Your task to perform on an android device: Open Chrome and go to settings Image 0: 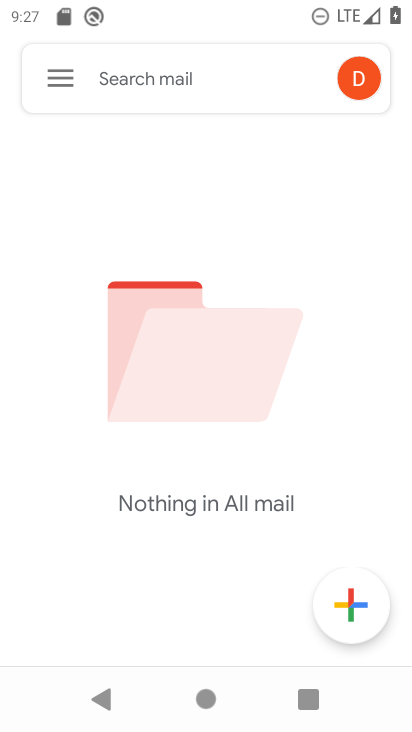
Step 0: press home button
Your task to perform on an android device: Open Chrome and go to settings Image 1: 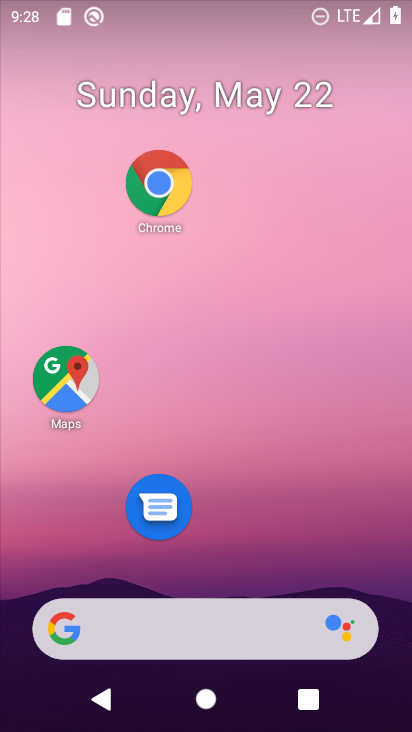
Step 1: click (176, 184)
Your task to perform on an android device: Open Chrome and go to settings Image 2: 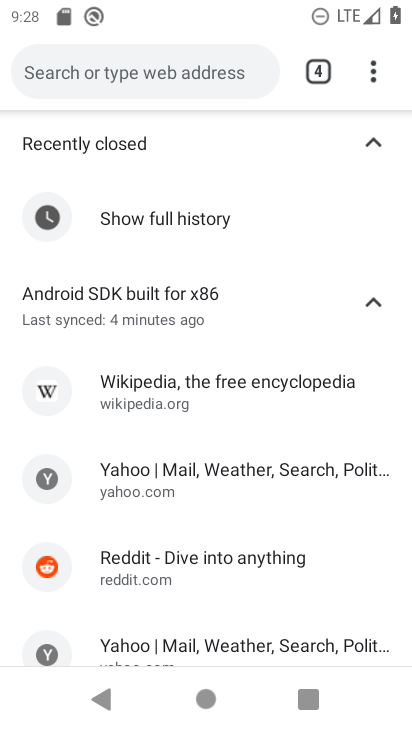
Step 2: click (371, 64)
Your task to perform on an android device: Open Chrome and go to settings Image 3: 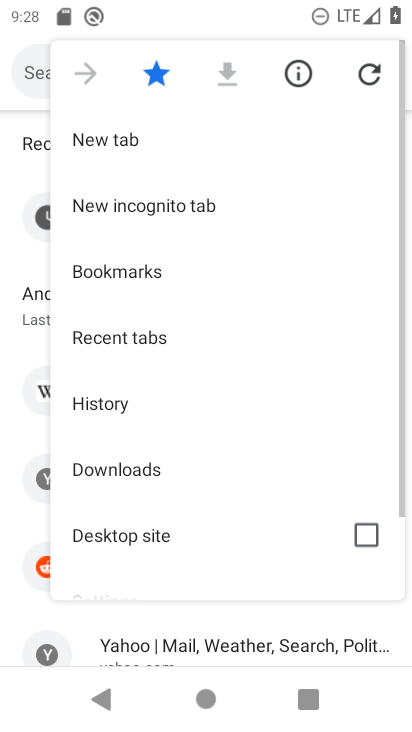
Step 3: drag from (173, 570) to (230, 54)
Your task to perform on an android device: Open Chrome and go to settings Image 4: 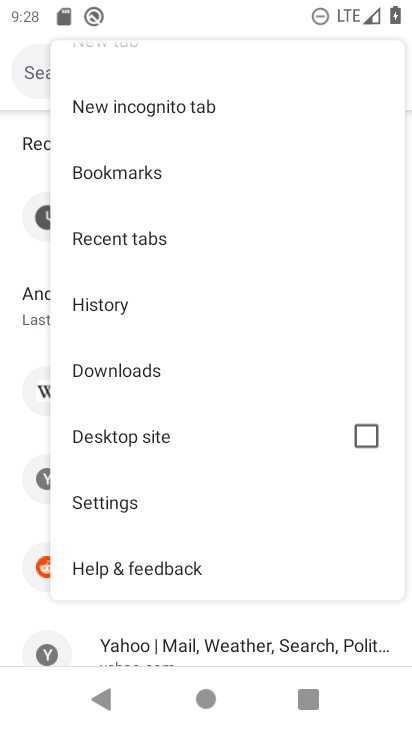
Step 4: click (115, 509)
Your task to perform on an android device: Open Chrome and go to settings Image 5: 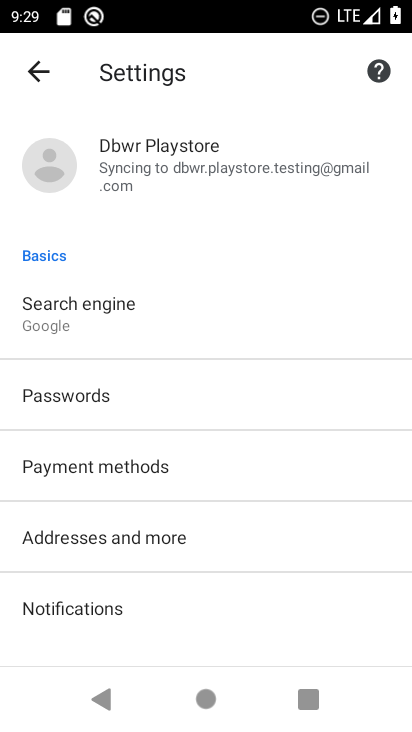
Step 5: task complete